Your task to perform on an android device: toggle improve location accuracy Image 0: 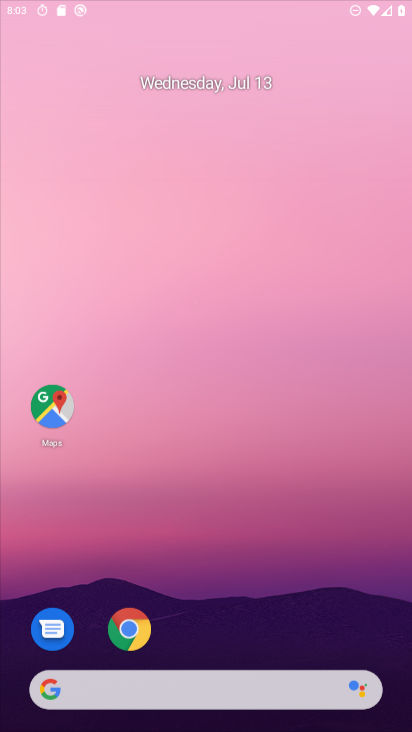
Step 0: drag from (401, 646) to (314, 6)
Your task to perform on an android device: toggle improve location accuracy Image 1: 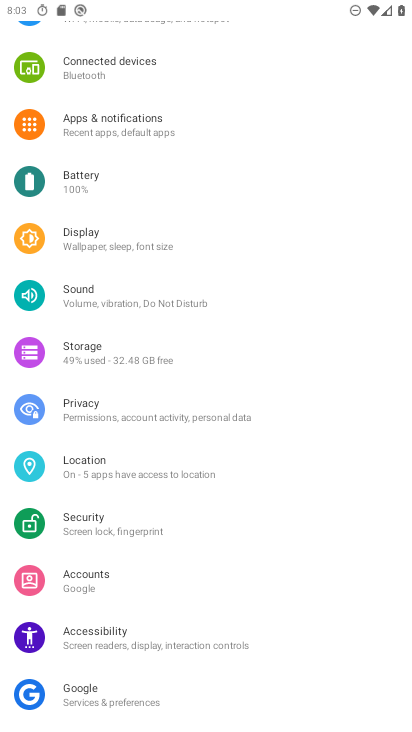
Step 1: press home button
Your task to perform on an android device: toggle improve location accuracy Image 2: 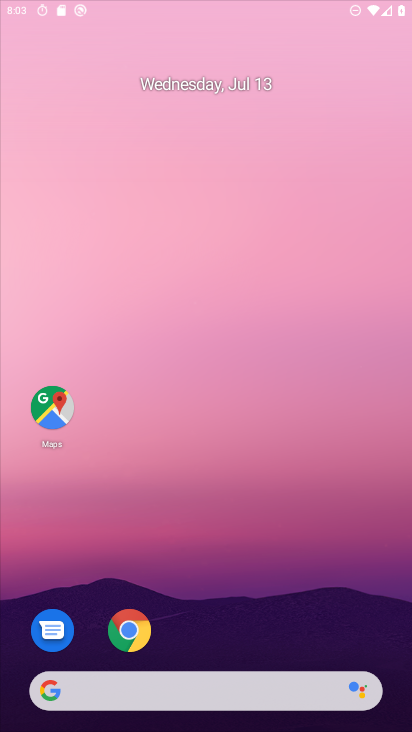
Step 2: drag from (352, 716) to (260, 14)
Your task to perform on an android device: toggle improve location accuracy Image 3: 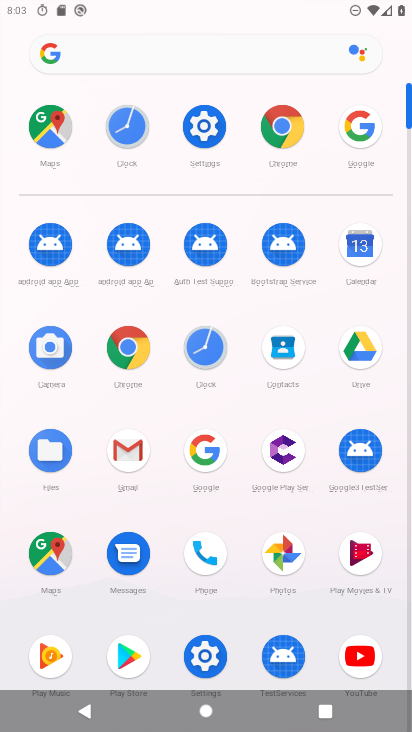
Step 3: click (203, 117)
Your task to perform on an android device: toggle improve location accuracy Image 4: 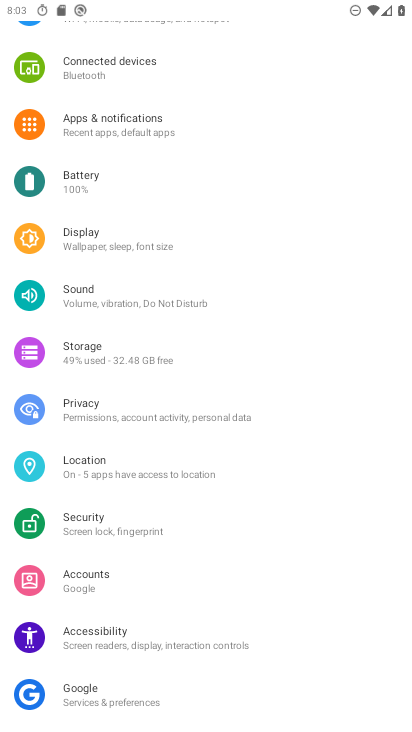
Step 4: click (101, 457)
Your task to perform on an android device: toggle improve location accuracy Image 5: 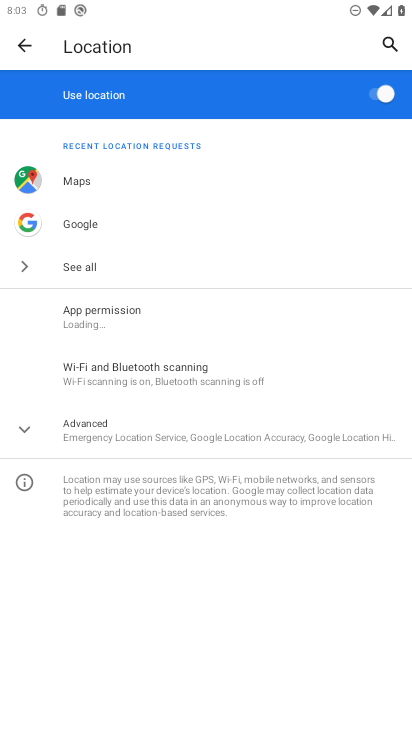
Step 5: click (100, 422)
Your task to perform on an android device: toggle improve location accuracy Image 6: 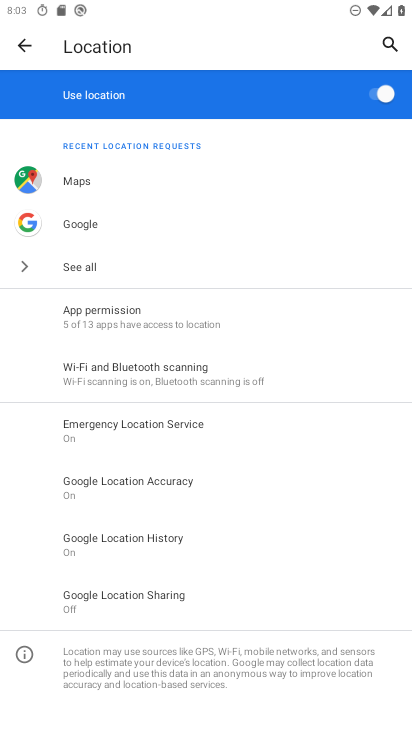
Step 6: click (146, 486)
Your task to perform on an android device: toggle improve location accuracy Image 7: 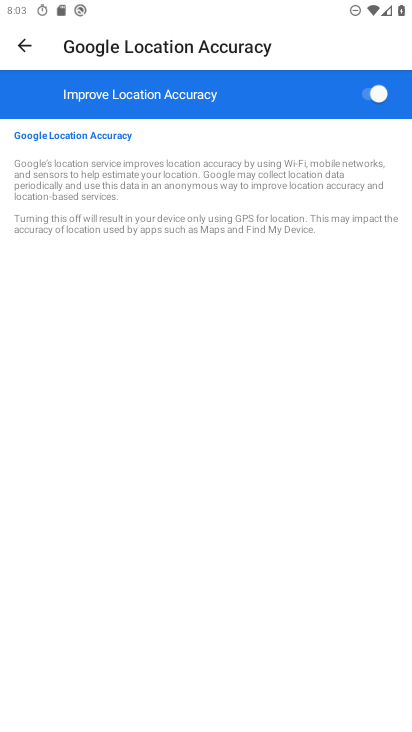
Step 7: click (363, 90)
Your task to perform on an android device: toggle improve location accuracy Image 8: 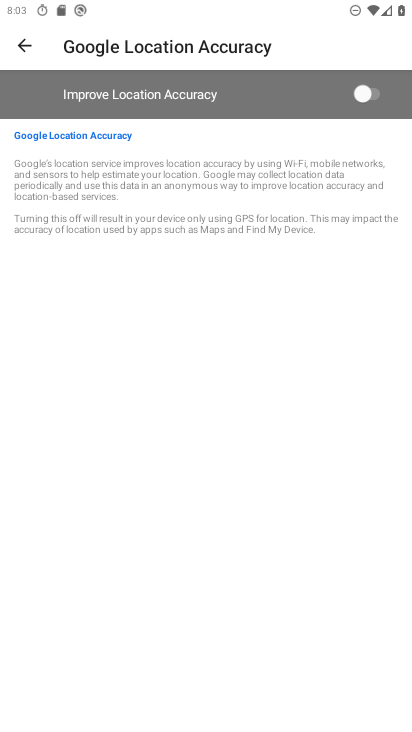
Step 8: task complete